Your task to perform on an android device: What is the news today? Image 0: 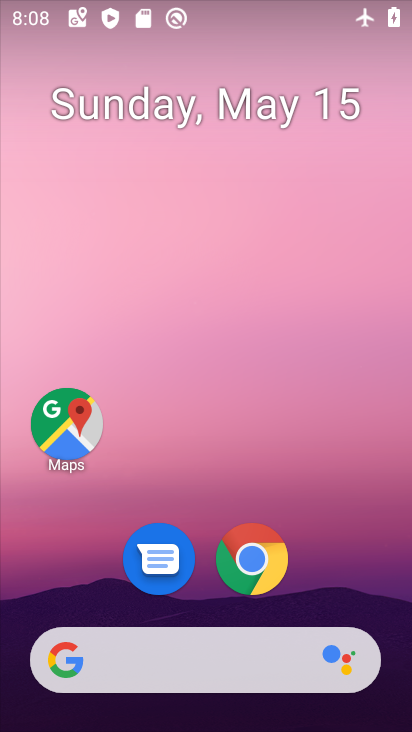
Step 0: drag from (333, 581) to (319, 288)
Your task to perform on an android device: What is the news today? Image 1: 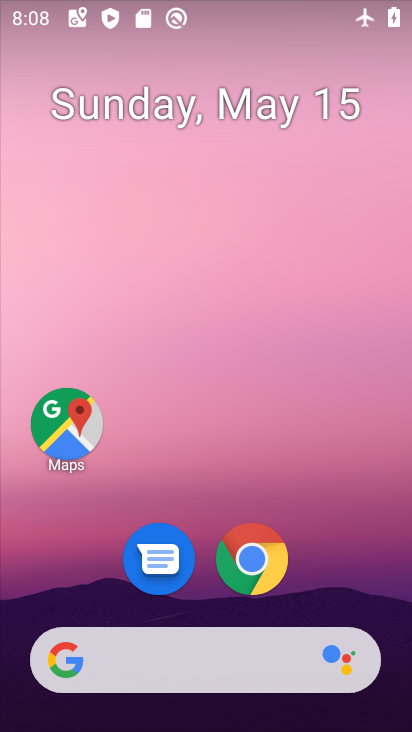
Step 1: click (234, 662)
Your task to perform on an android device: What is the news today? Image 2: 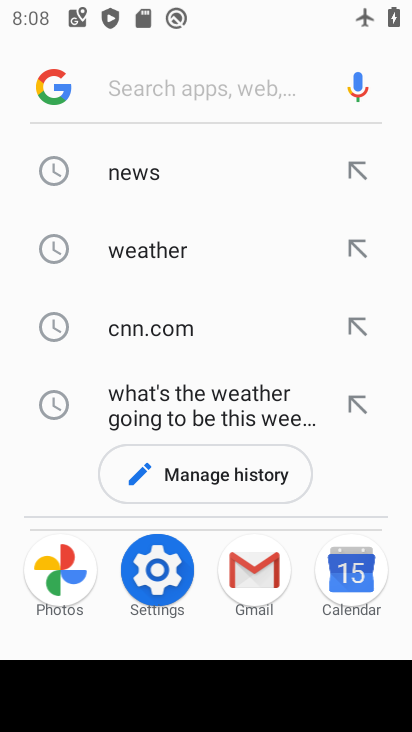
Step 2: click (192, 174)
Your task to perform on an android device: What is the news today? Image 3: 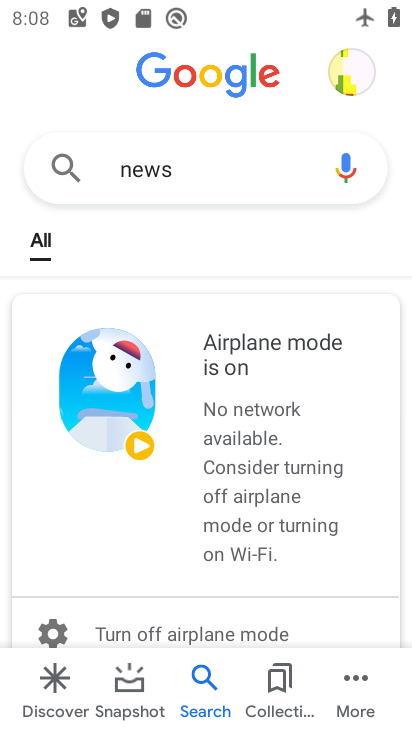
Step 3: task complete